Your task to perform on an android device: turn on the 12-hour format for clock Image 0: 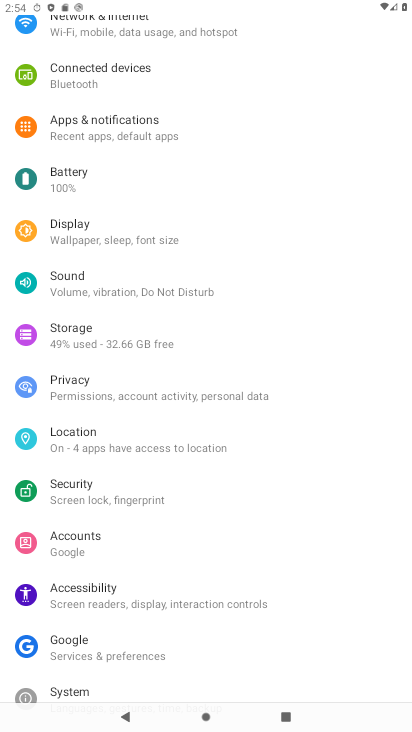
Step 0: drag from (107, 653) to (154, 378)
Your task to perform on an android device: turn on the 12-hour format for clock Image 1: 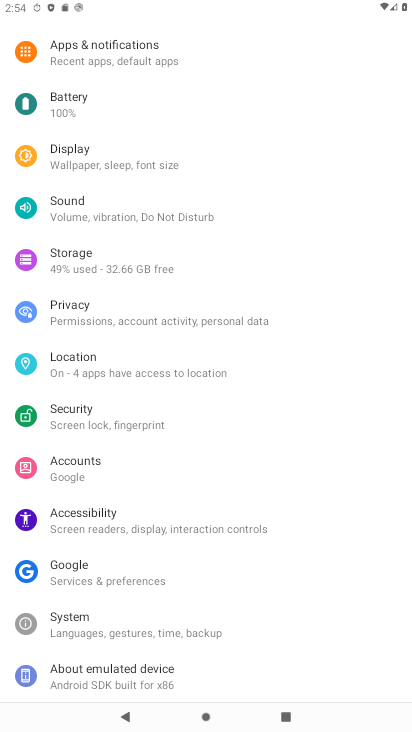
Step 1: click (111, 630)
Your task to perform on an android device: turn on the 12-hour format for clock Image 2: 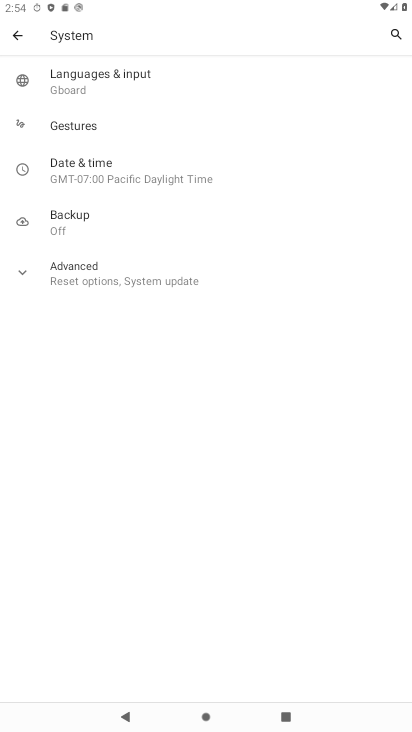
Step 2: click (111, 172)
Your task to perform on an android device: turn on the 12-hour format for clock Image 3: 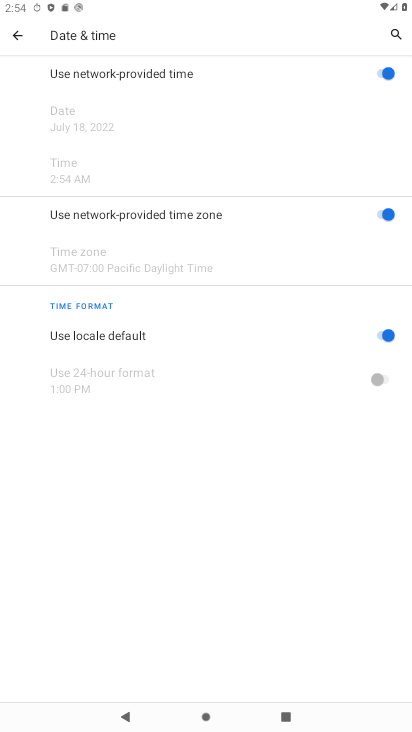
Step 3: task complete